Your task to perform on an android device: change notifications settings Image 0: 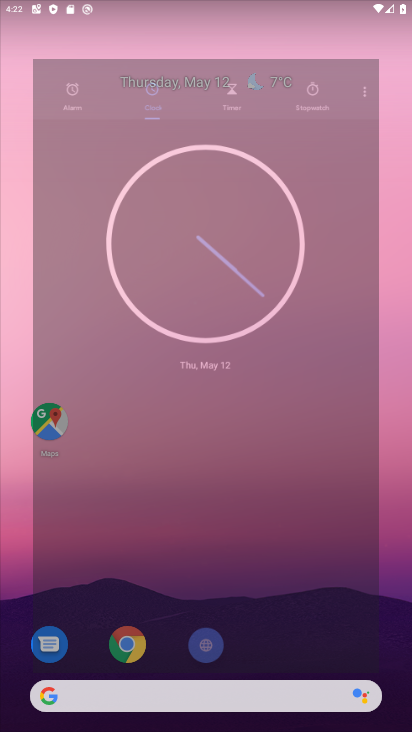
Step 0: drag from (227, 649) to (320, 154)
Your task to perform on an android device: change notifications settings Image 1: 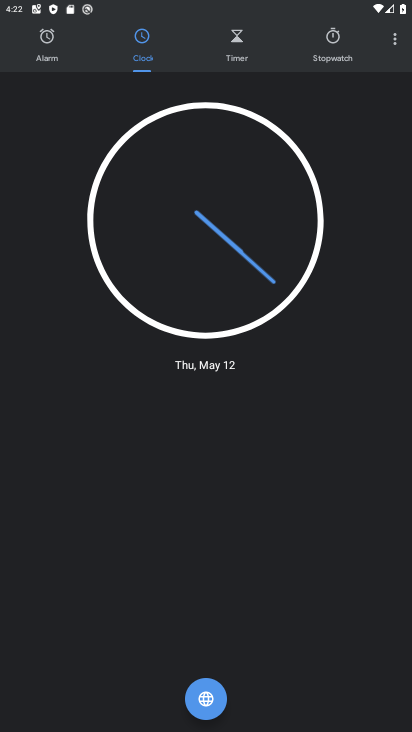
Step 1: press home button
Your task to perform on an android device: change notifications settings Image 2: 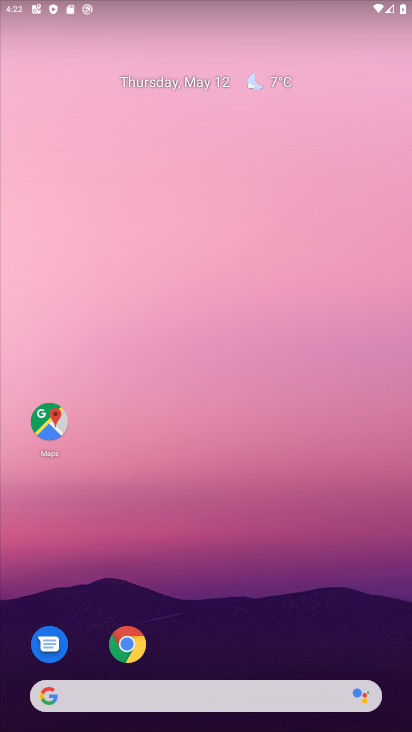
Step 2: click (280, 235)
Your task to perform on an android device: change notifications settings Image 3: 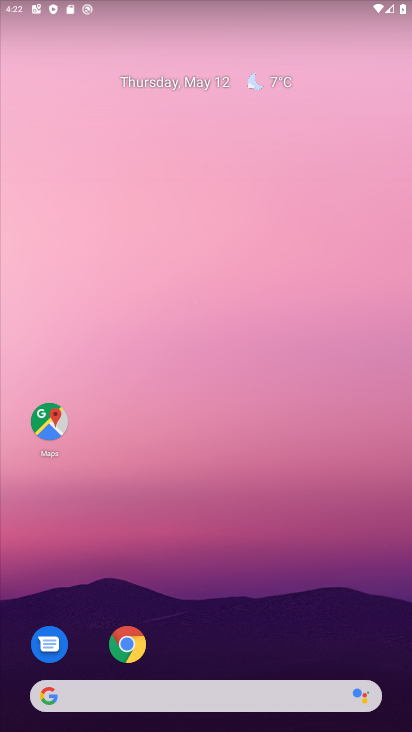
Step 3: drag from (234, 667) to (269, 100)
Your task to perform on an android device: change notifications settings Image 4: 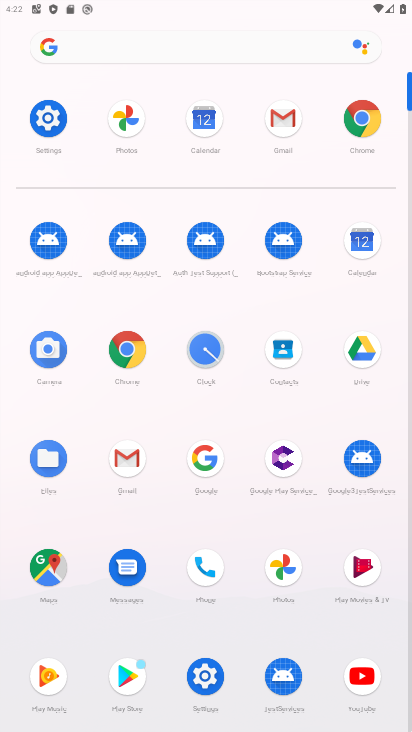
Step 4: click (56, 109)
Your task to perform on an android device: change notifications settings Image 5: 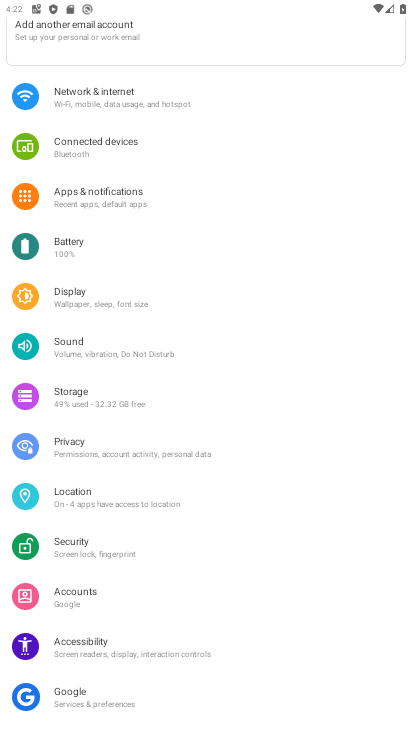
Step 5: click (125, 193)
Your task to perform on an android device: change notifications settings Image 6: 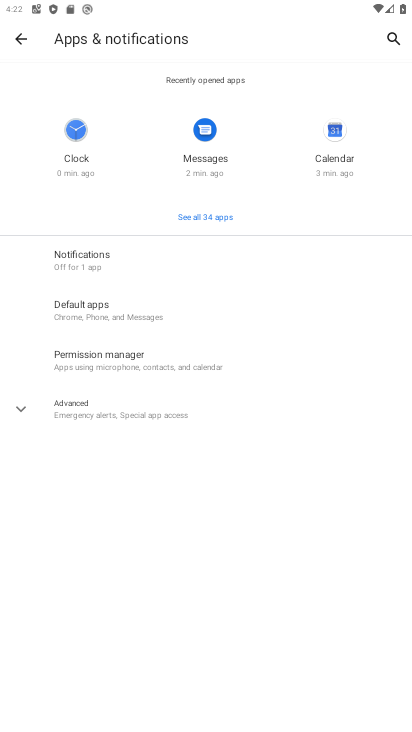
Step 6: click (112, 267)
Your task to perform on an android device: change notifications settings Image 7: 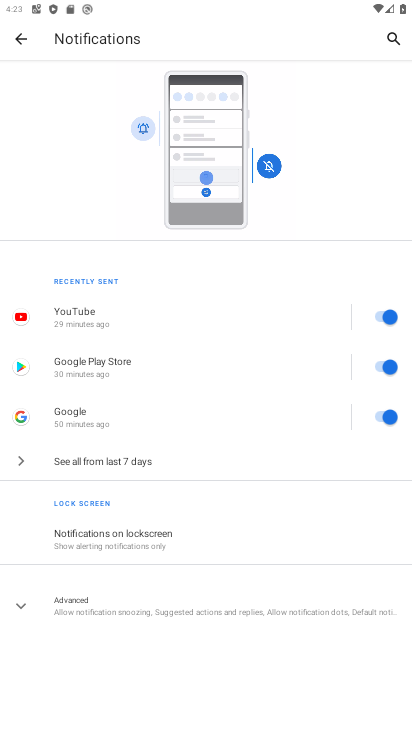
Step 7: click (387, 313)
Your task to perform on an android device: change notifications settings Image 8: 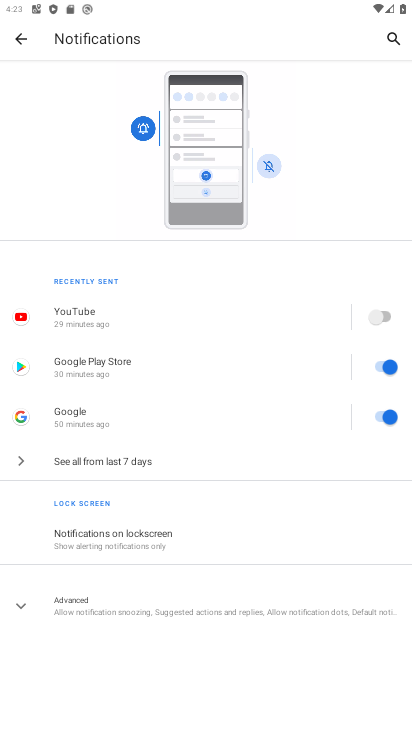
Step 8: click (382, 358)
Your task to perform on an android device: change notifications settings Image 9: 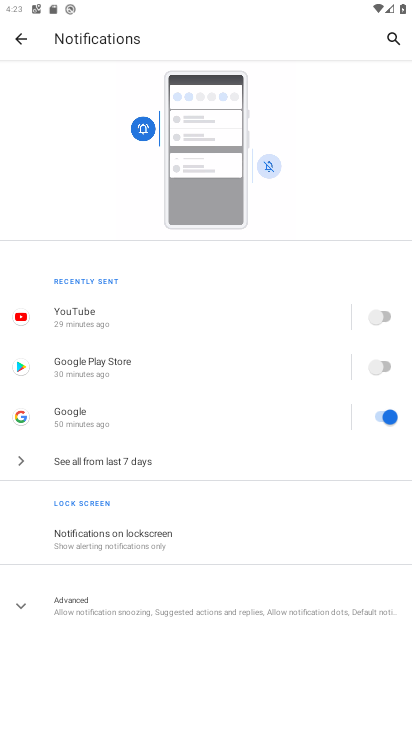
Step 9: click (384, 417)
Your task to perform on an android device: change notifications settings Image 10: 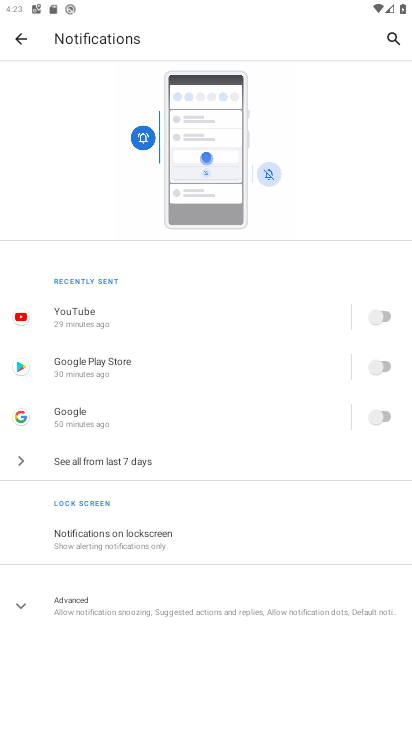
Step 10: click (130, 538)
Your task to perform on an android device: change notifications settings Image 11: 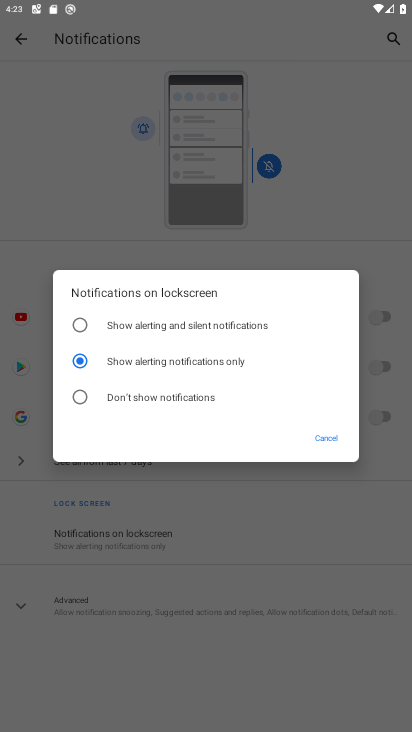
Step 11: click (87, 323)
Your task to perform on an android device: change notifications settings Image 12: 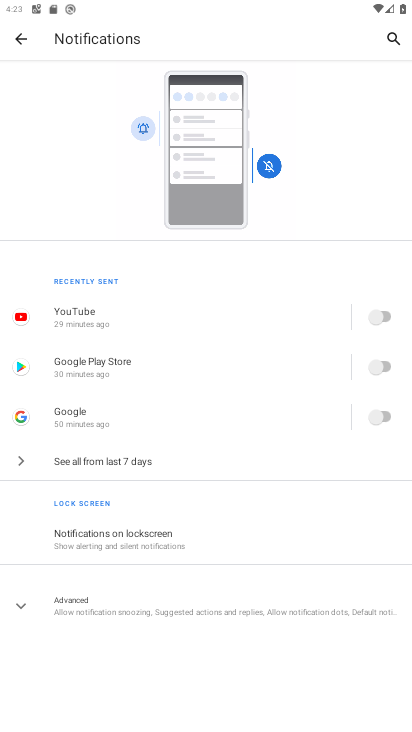
Step 12: task complete